Your task to perform on an android device: Go to battery settings Image 0: 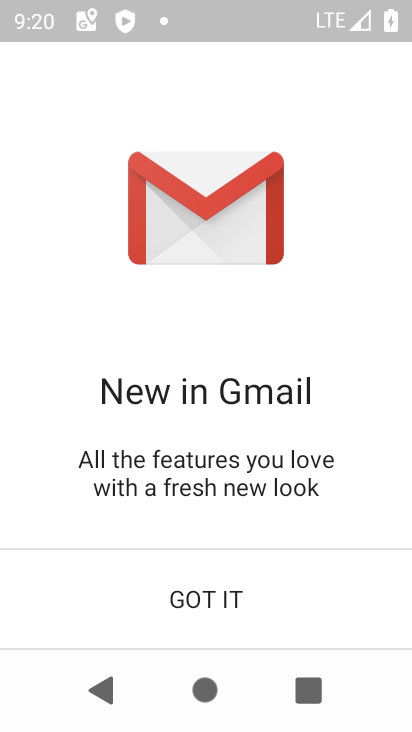
Step 0: press home button
Your task to perform on an android device: Go to battery settings Image 1: 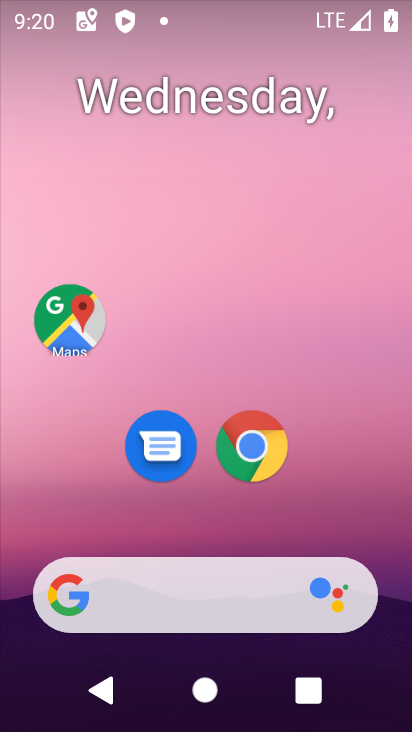
Step 1: drag from (147, 574) to (327, 75)
Your task to perform on an android device: Go to battery settings Image 2: 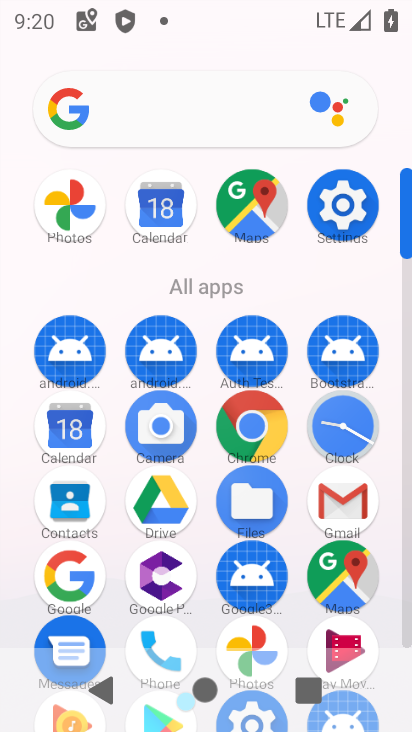
Step 2: click (332, 194)
Your task to perform on an android device: Go to battery settings Image 3: 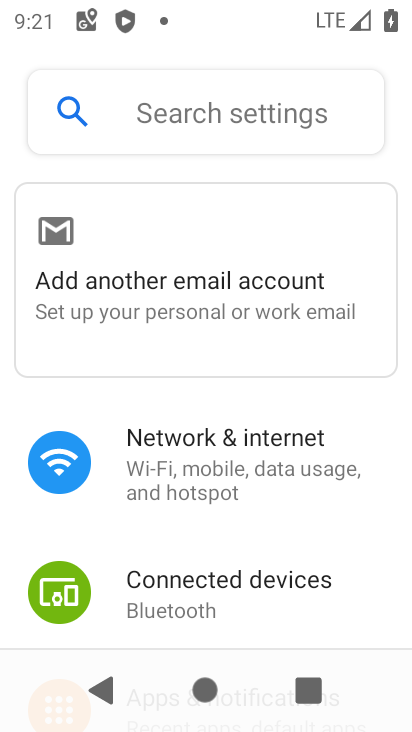
Step 3: drag from (201, 589) to (331, 110)
Your task to perform on an android device: Go to battery settings Image 4: 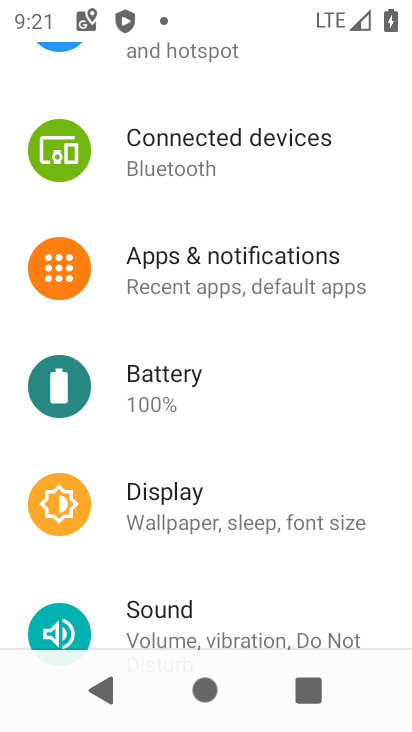
Step 4: click (158, 394)
Your task to perform on an android device: Go to battery settings Image 5: 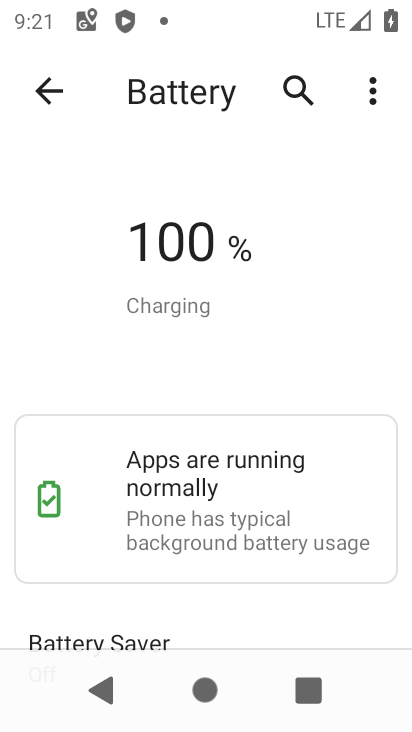
Step 5: task complete